Your task to perform on an android device: Open Google Chrome and open the bookmarks view Image 0: 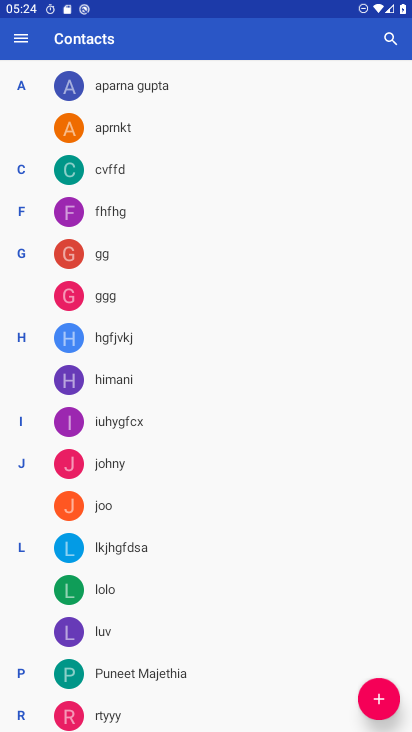
Step 0: press home button
Your task to perform on an android device: Open Google Chrome and open the bookmarks view Image 1: 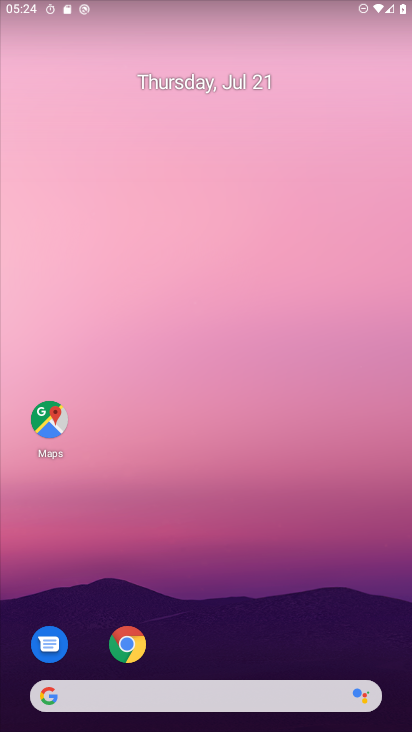
Step 1: click (128, 650)
Your task to perform on an android device: Open Google Chrome and open the bookmarks view Image 2: 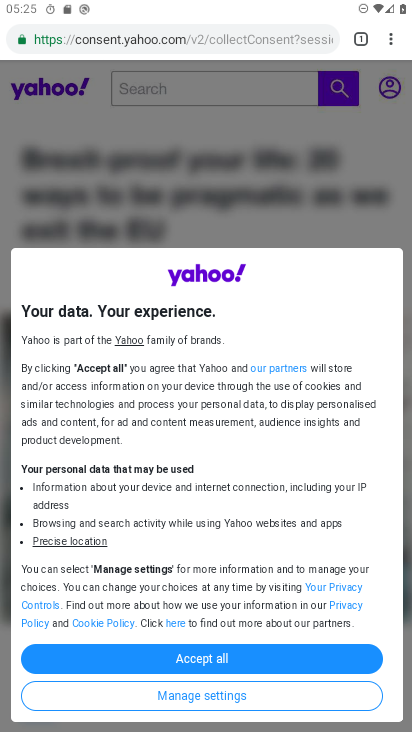
Step 2: click (388, 42)
Your task to perform on an android device: Open Google Chrome and open the bookmarks view Image 3: 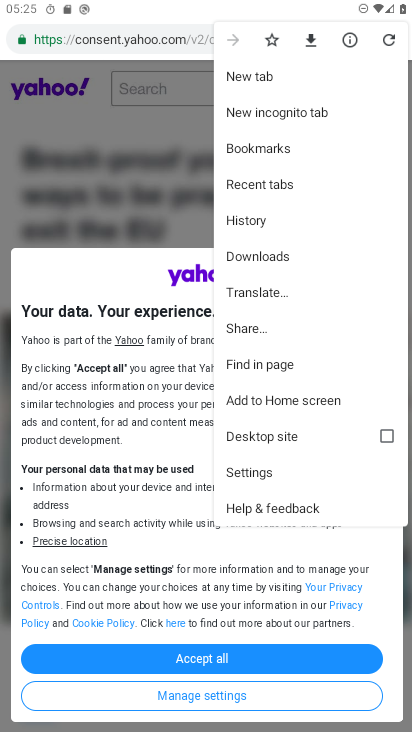
Step 3: click (265, 150)
Your task to perform on an android device: Open Google Chrome and open the bookmarks view Image 4: 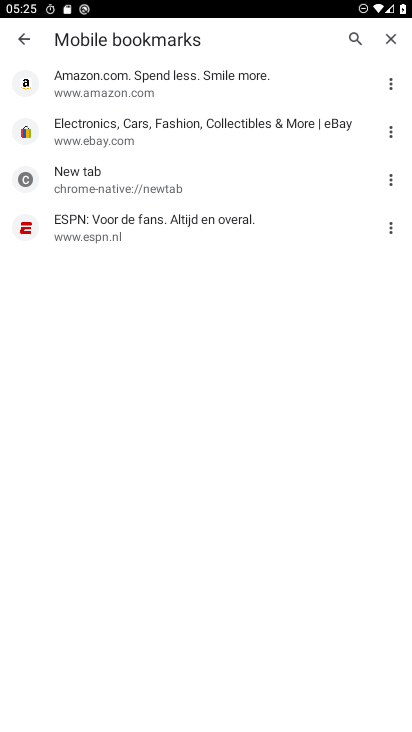
Step 4: task complete